Your task to perform on an android device: Go to Maps Image 0: 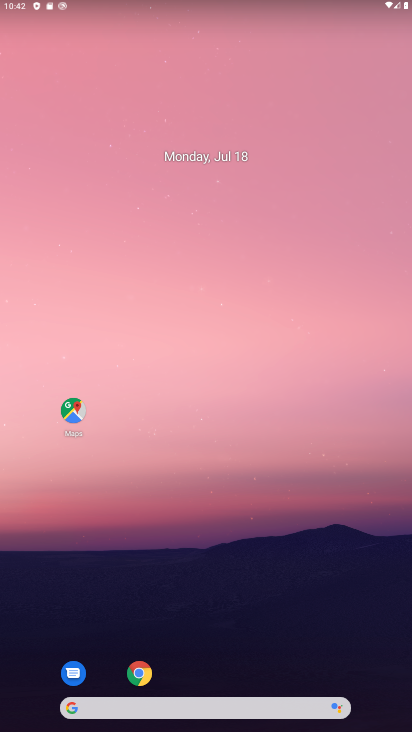
Step 0: click (72, 410)
Your task to perform on an android device: Go to Maps Image 1: 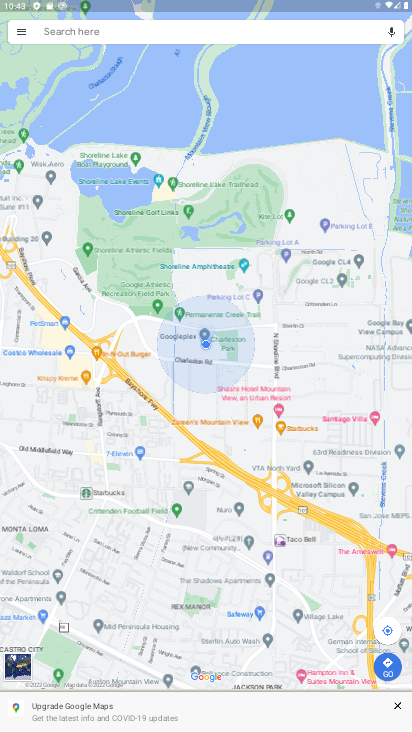
Step 1: task complete